Your task to perform on an android device: see sites visited before in the chrome app Image 0: 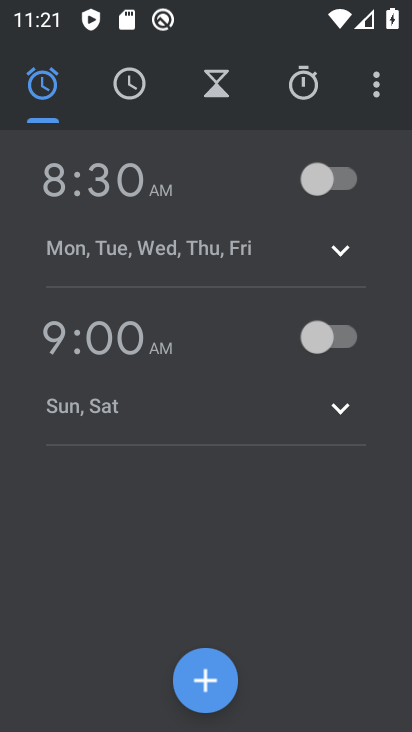
Step 0: press home button
Your task to perform on an android device: see sites visited before in the chrome app Image 1: 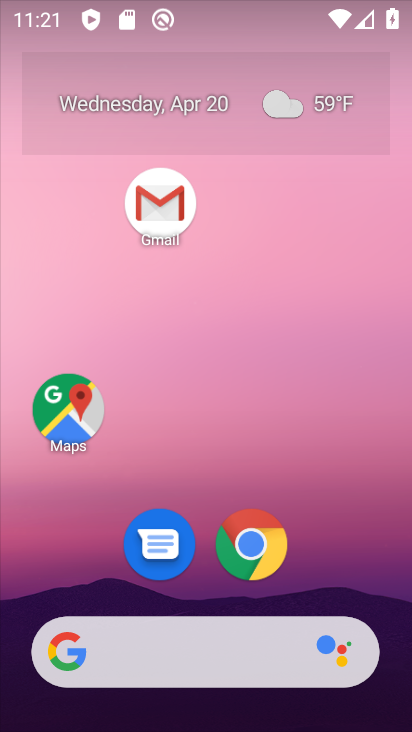
Step 1: click (275, 554)
Your task to perform on an android device: see sites visited before in the chrome app Image 2: 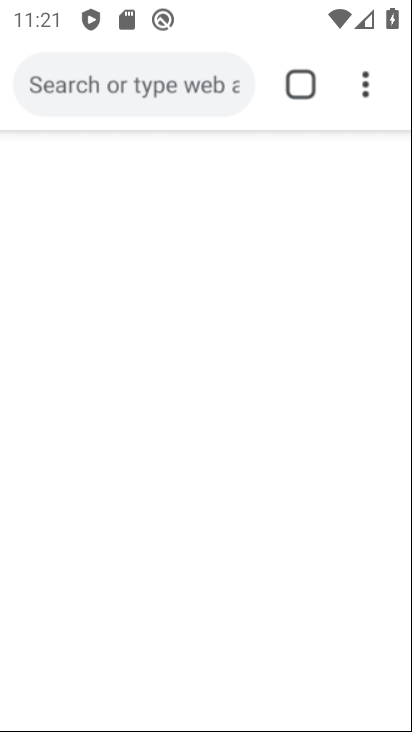
Step 2: click (369, 83)
Your task to perform on an android device: see sites visited before in the chrome app Image 3: 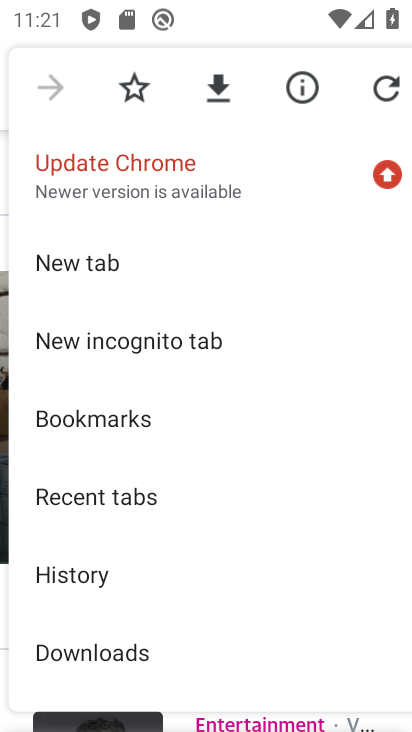
Step 3: click (369, 83)
Your task to perform on an android device: see sites visited before in the chrome app Image 4: 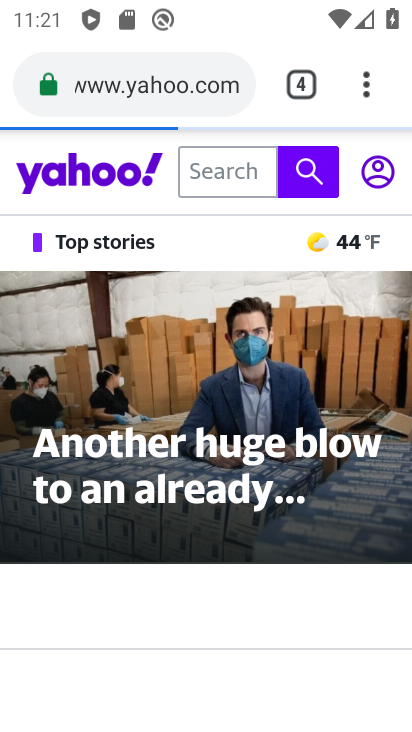
Step 4: click (368, 90)
Your task to perform on an android device: see sites visited before in the chrome app Image 5: 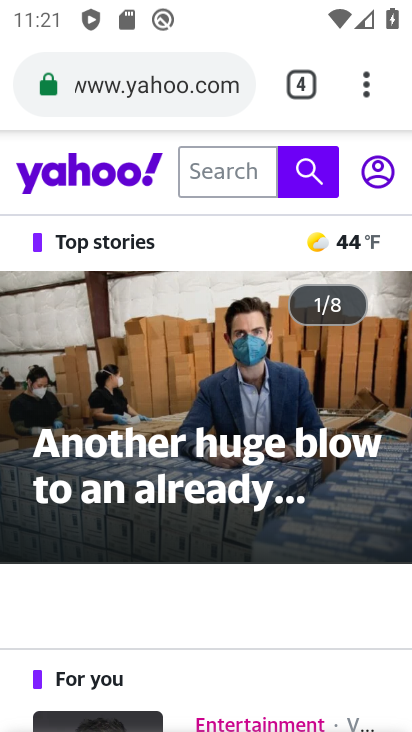
Step 5: click (368, 90)
Your task to perform on an android device: see sites visited before in the chrome app Image 6: 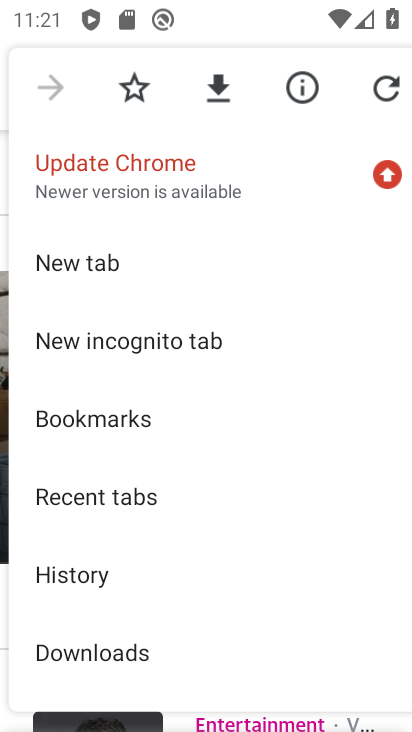
Step 6: click (123, 490)
Your task to perform on an android device: see sites visited before in the chrome app Image 7: 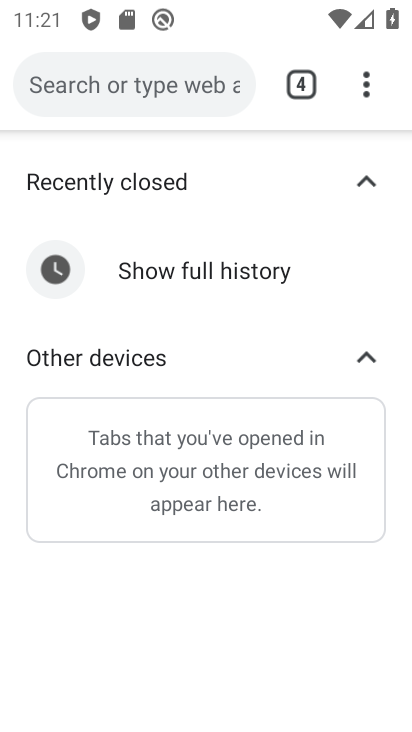
Step 7: task complete